Your task to perform on an android device: see tabs open on other devices in the chrome app Image 0: 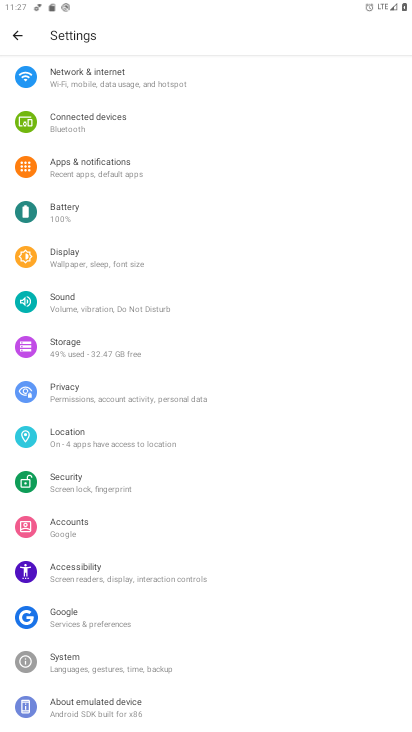
Step 0: press home button
Your task to perform on an android device: see tabs open on other devices in the chrome app Image 1: 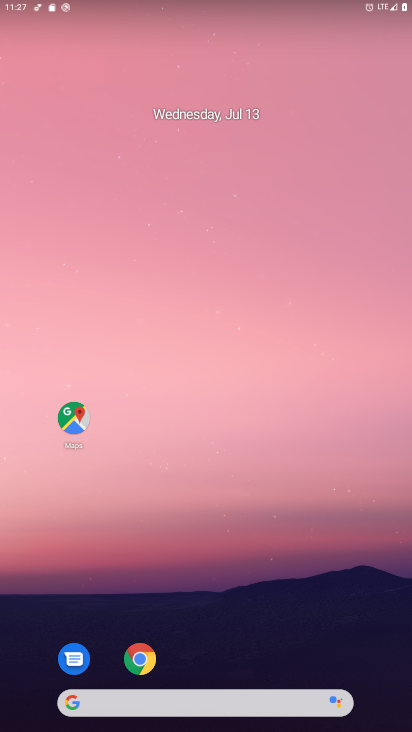
Step 1: click (139, 657)
Your task to perform on an android device: see tabs open on other devices in the chrome app Image 2: 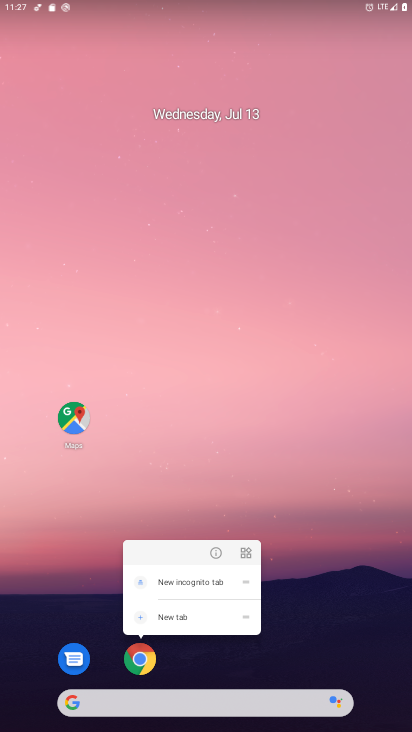
Step 2: click (138, 653)
Your task to perform on an android device: see tabs open on other devices in the chrome app Image 3: 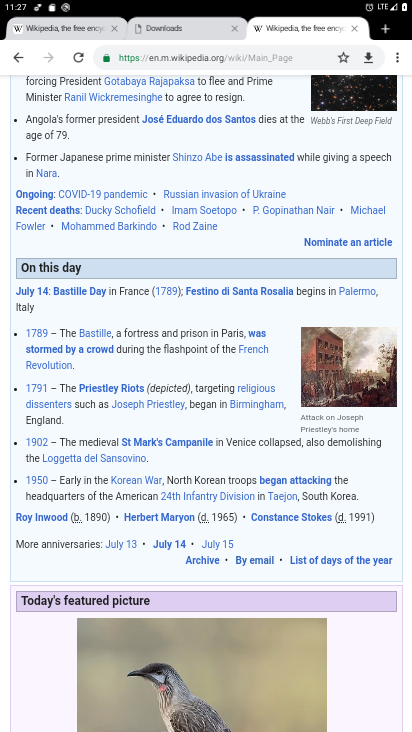
Step 3: click (353, 24)
Your task to perform on an android device: see tabs open on other devices in the chrome app Image 4: 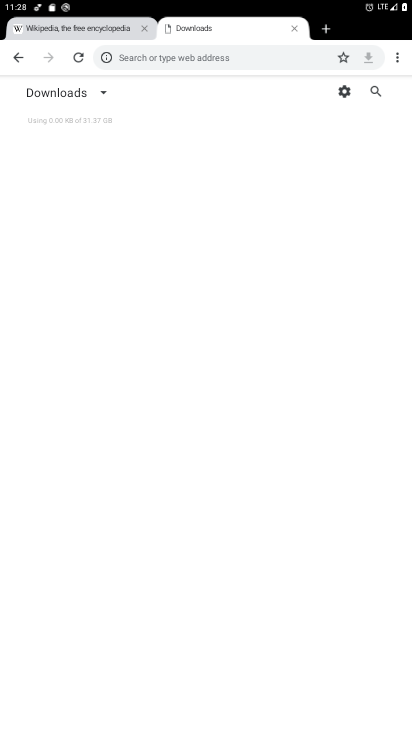
Step 4: click (398, 58)
Your task to perform on an android device: see tabs open on other devices in the chrome app Image 5: 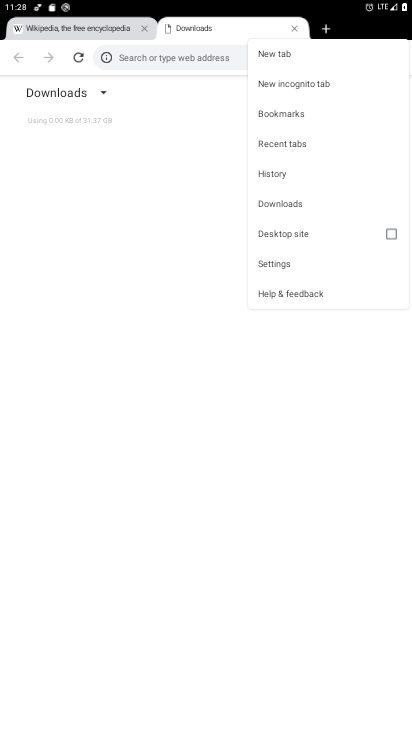
Step 5: click (309, 141)
Your task to perform on an android device: see tabs open on other devices in the chrome app Image 6: 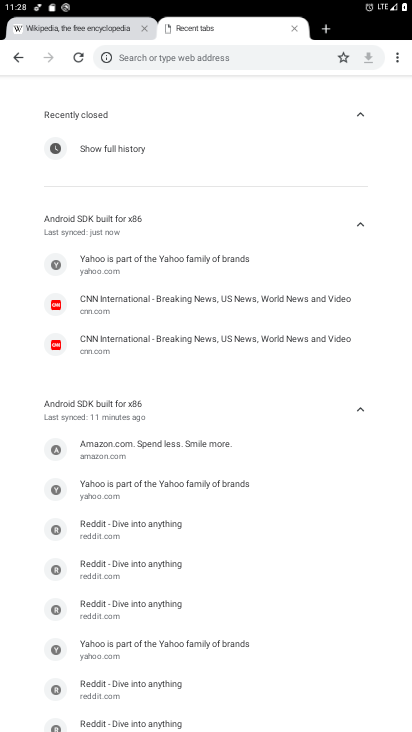
Step 6: task complete